Your task to perform on an android device: show emergency info Image 0: 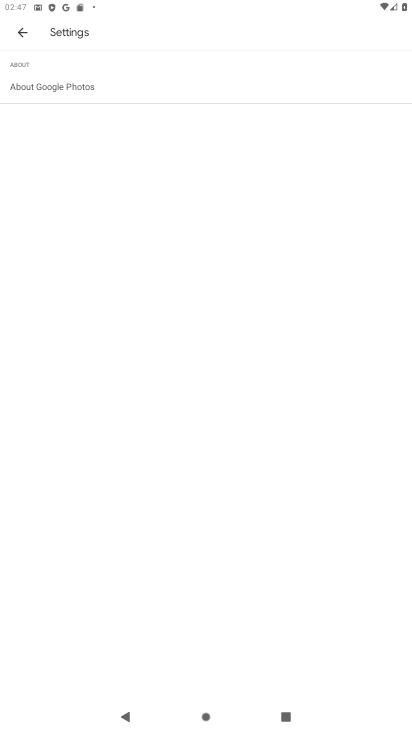
Step 0: press home button
Your task to perform on an android device: show emergency info Image 1: 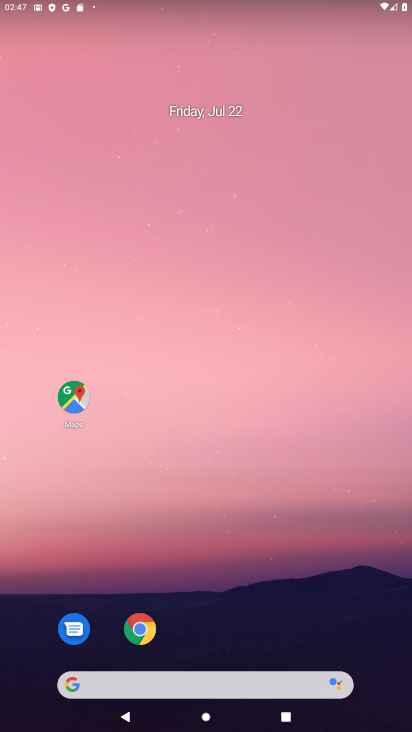
Step 1: drag from (251, 640) to (229, 99)
Your task to perform on an android device: show emergency info Image 2: 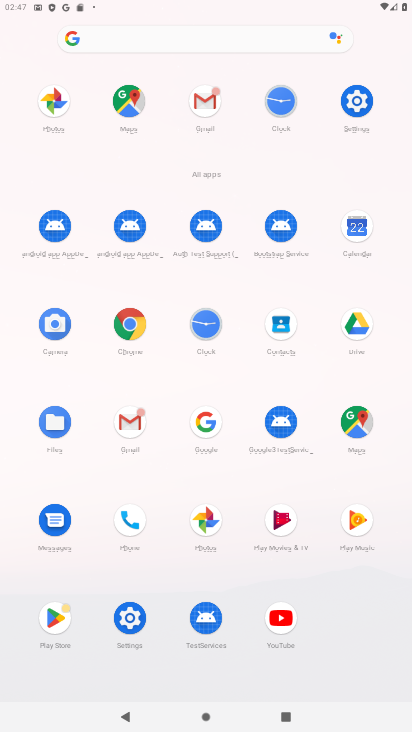
Step 2: click (353, 99)
Your task to perform on an android device: show emergency info Image 3: 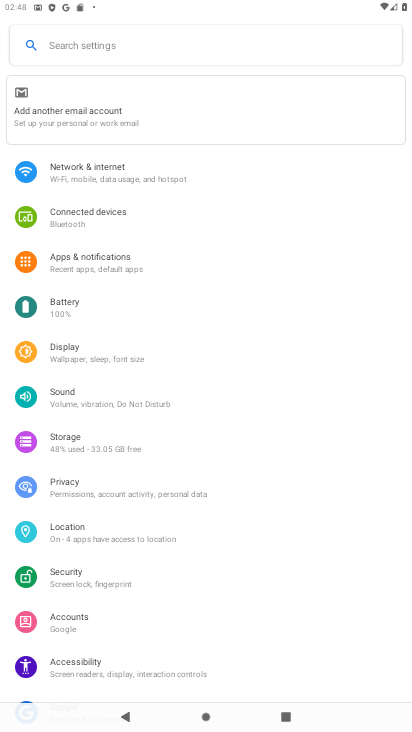
Step 3: drag from (189, 630) to (170, 178)
Your task to perform on an android device: show emergency info Image 4: 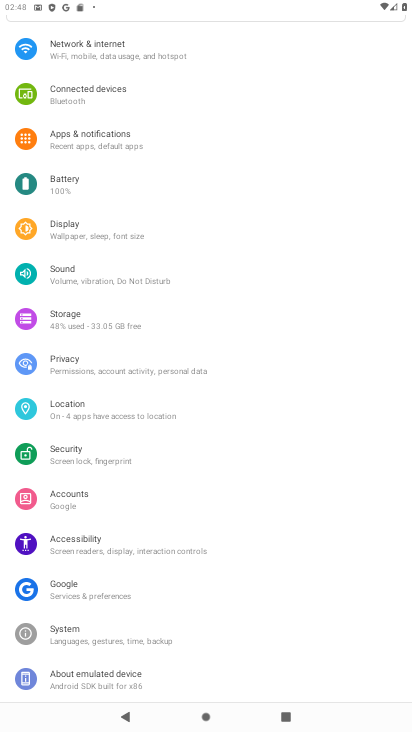
Step 4: click (197, 671)
Your task to perform on an android device: show emergency info Image 5: 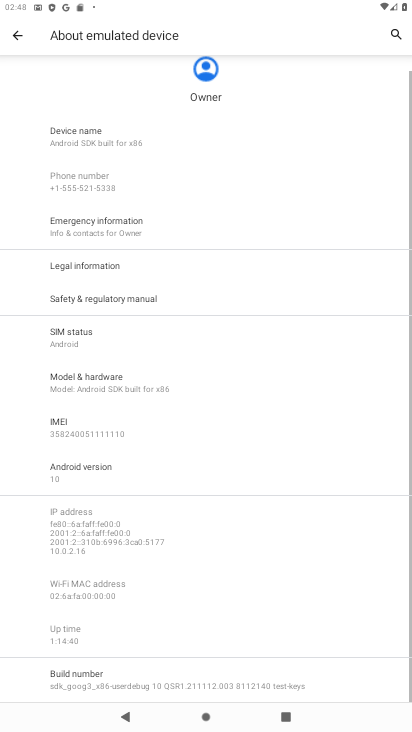
Step 5: click (229, 215)
Your task to perform on an android device: show emergency info Image 6: 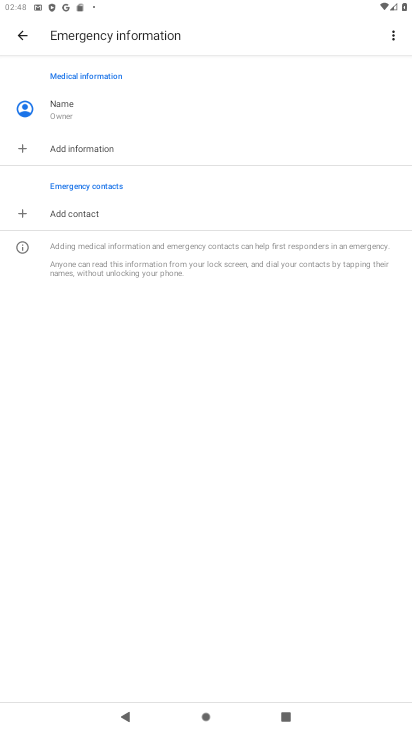
Step 6: task complete